Your task to perform on an android device: Do I have any events today? Image 0: 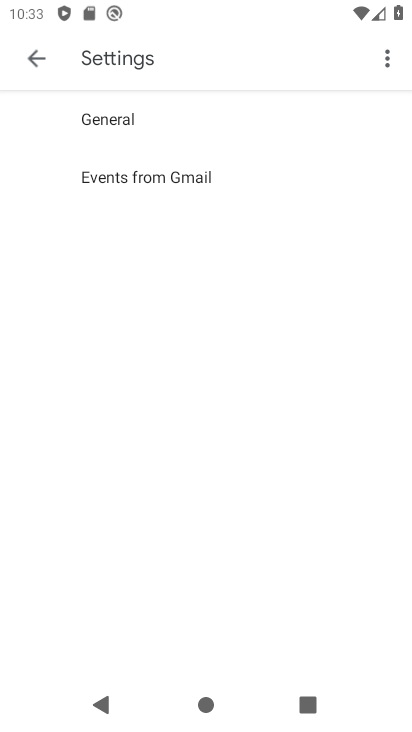
Step 0: press home button
Your task to perform on an android device: Do I have any events today? Image 1: 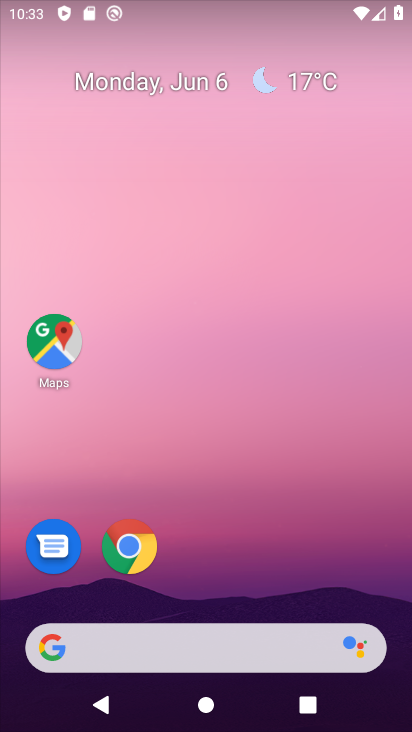
Step 1: drag from (206, 497) to (231, 48)
Your task to perform on an android device: Do I have any events today? Image 2: 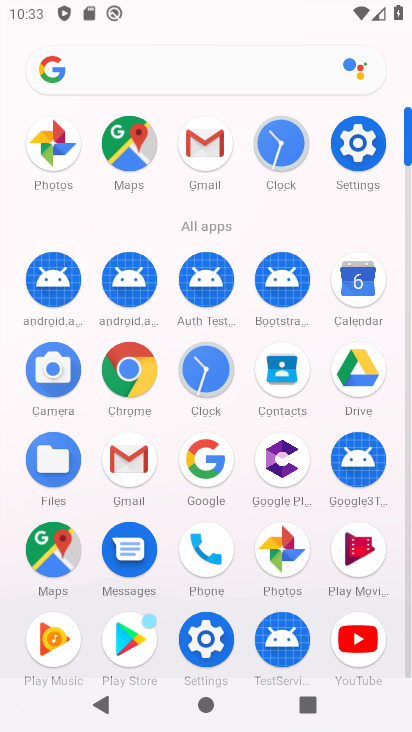
Step 2: click (359, 288)
Your task to perform on an android device: Do I have any events today? Image 3: 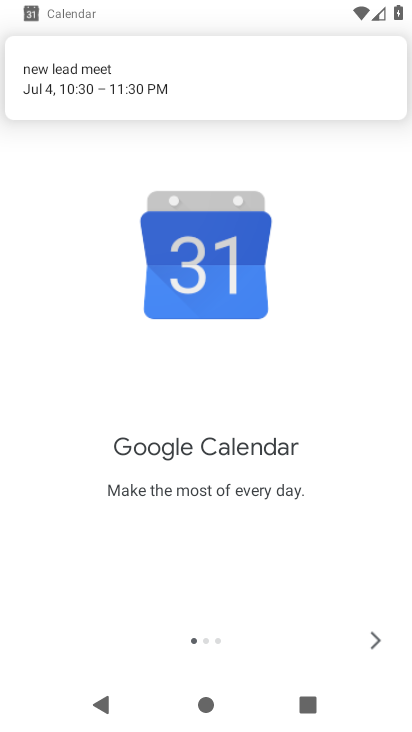
Step 3: click (364, 630)
Your task to perform on an android device: Do I have any events today? Image 4: 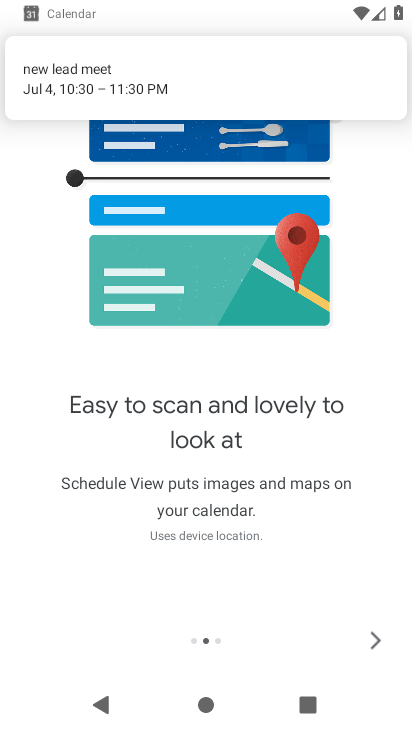
Step 4: click (365, 629)
Your task to perform on an android device: Do I have any events today? Image 5: 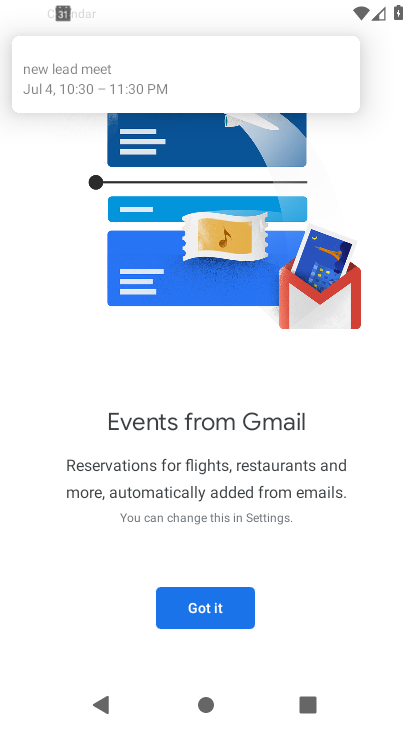
Step 5: click (207, 614)
Your task to perform on an android device: Do I have any events today? Image 6: 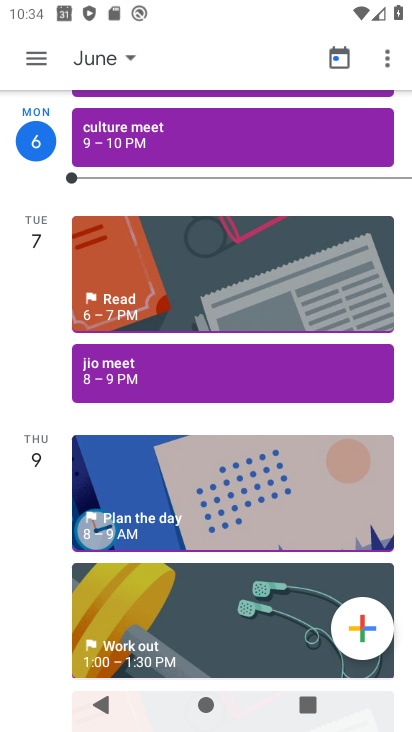
Step 6: click (47, 131)
Your task to perform on an android device: Do I have any events today? Image 7: 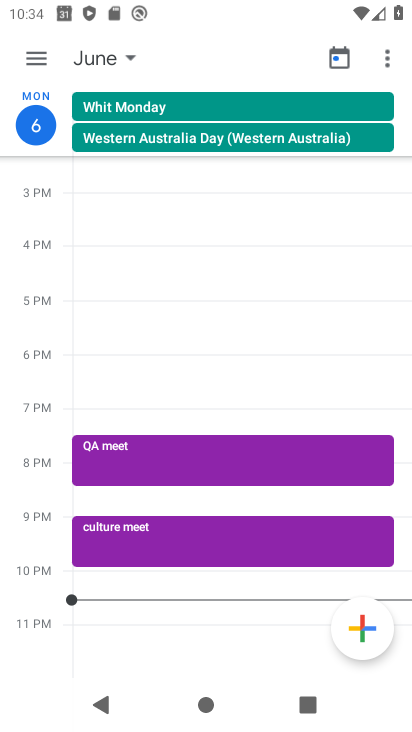
Step 7: task complete